Your task to perform on an android device: Do I have any events tomorrow? Image 0: 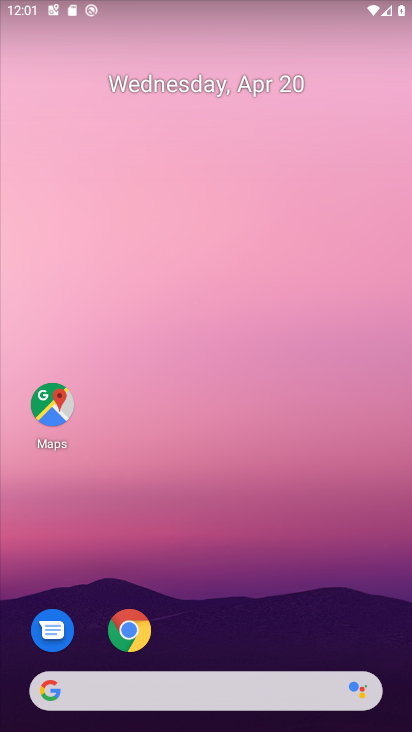
Step 0: drag from (321, 624) to (391, 106)
Your task to perform on an android device: Do I have any events tomorrow? Image 1: 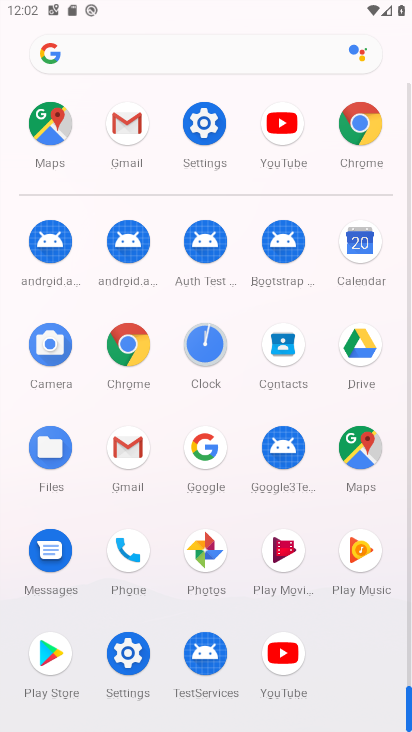
Step 1: click (364, 236)
Your task to perform on an android device: Do I have any events tomorrow? Image 2: 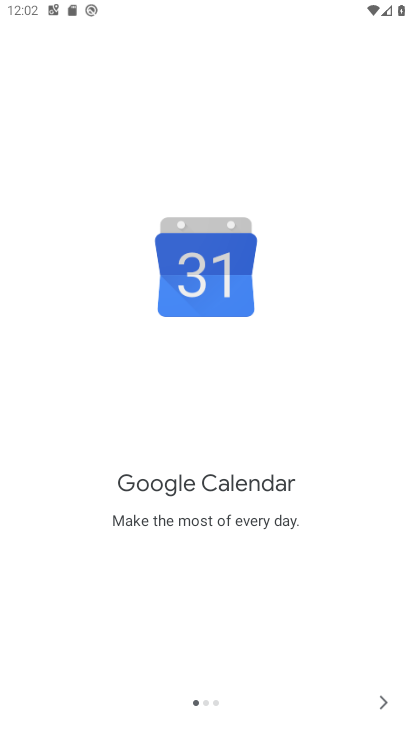
Step 2: click (381, 698)
Your task to perform on an android device: Do I have any events tomorrow? Image 3: 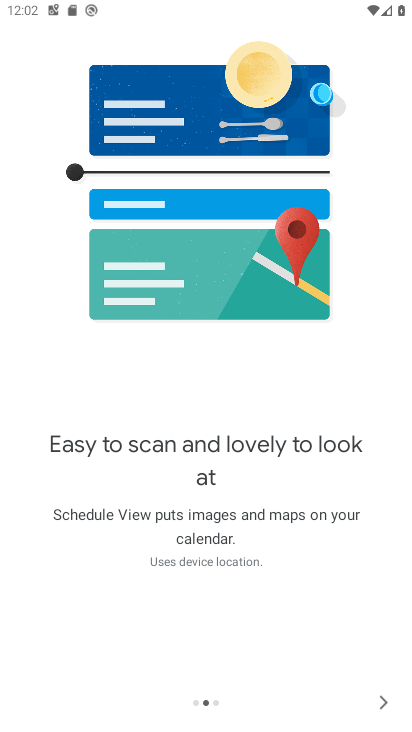
Step 3: click (381, 698)
Your task to perform on an android device: Do I have any events tomorrow? Image 4: 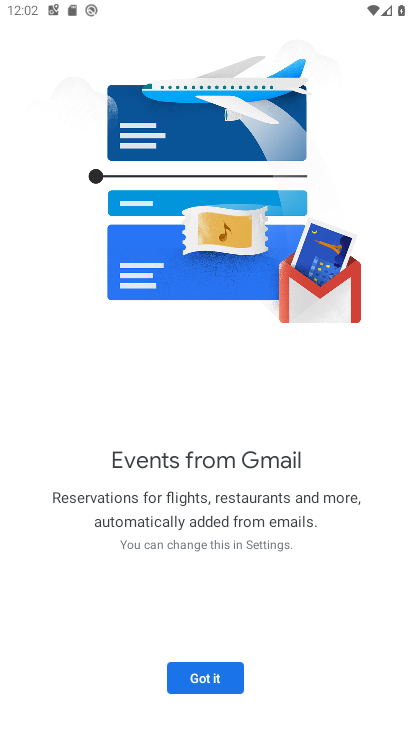
Step 4: click (207, 671)
Your task to perform on an android device: Do I have any events tomorrow? Image 5: 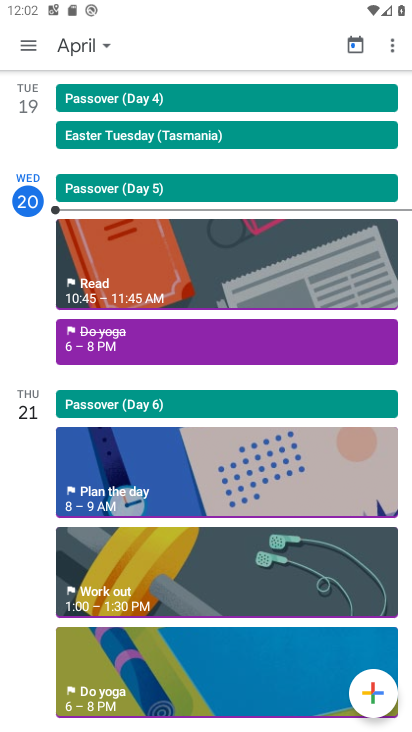
Step 5: click (91, 45)
Your task to perform on an android device: Do I have any events tomorrow? Image 6: 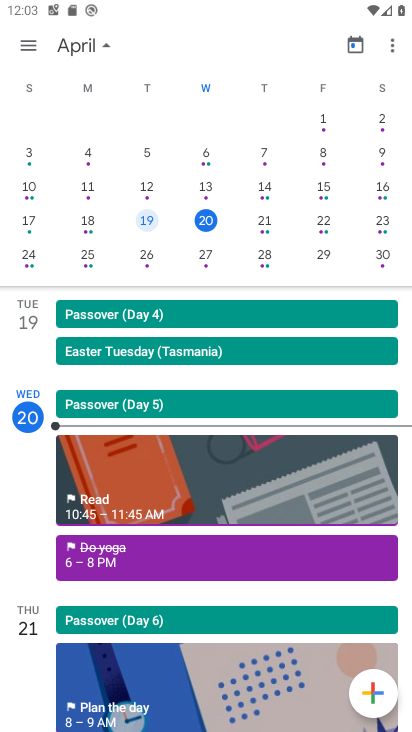
Step 6: click (265, 217)
Your task to perform on an android device: Do I have any events tomorrow? Image 7: 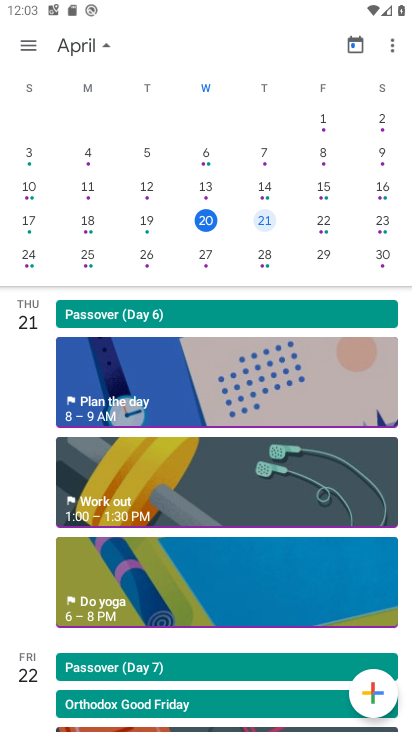
Step 7: task complete